Your task to perform on an android device: Add usb-c to usb-a to the cart on target.com, then select checkout. Image 0: 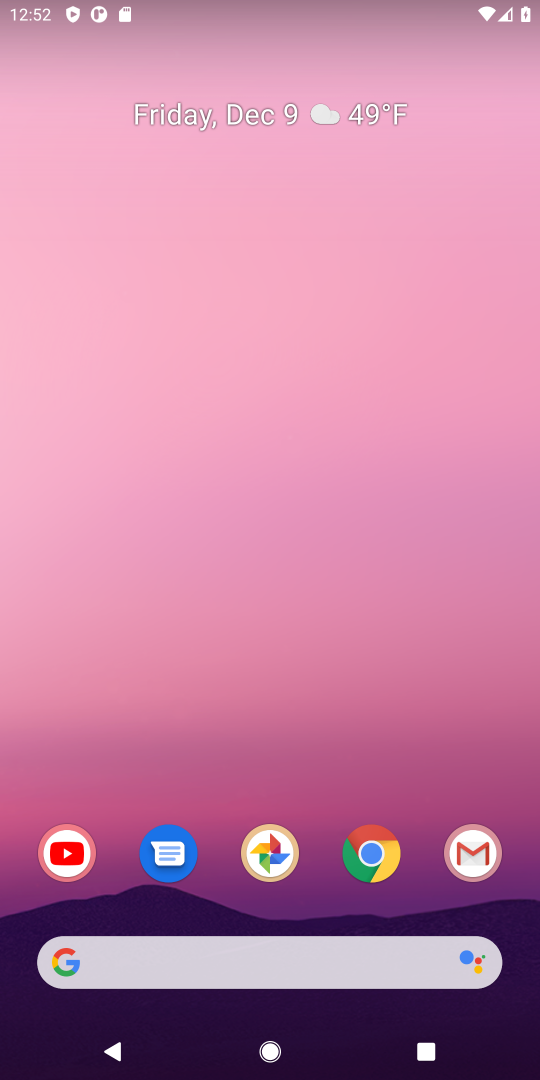
Step 0: click (275, 952)
Your task to perform on an android device: Add usb-c to usb-a to the cart on target.com, then select checkout. Image 1: 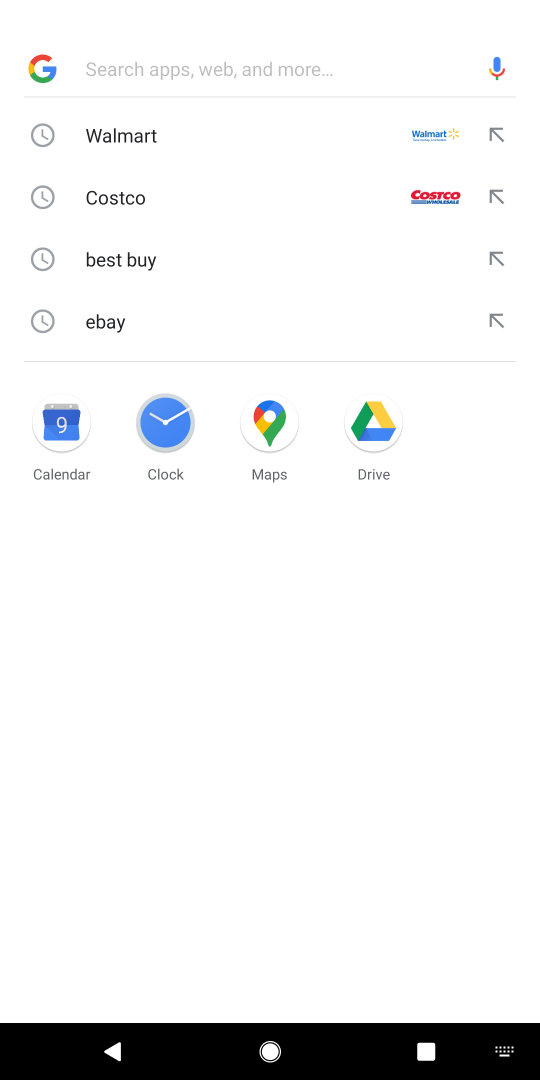
Step 1: click (151, 59)
Your task to perform on an android device: Add usb-c to usb-a to the cart on target.com, then select checkout. Image 2: 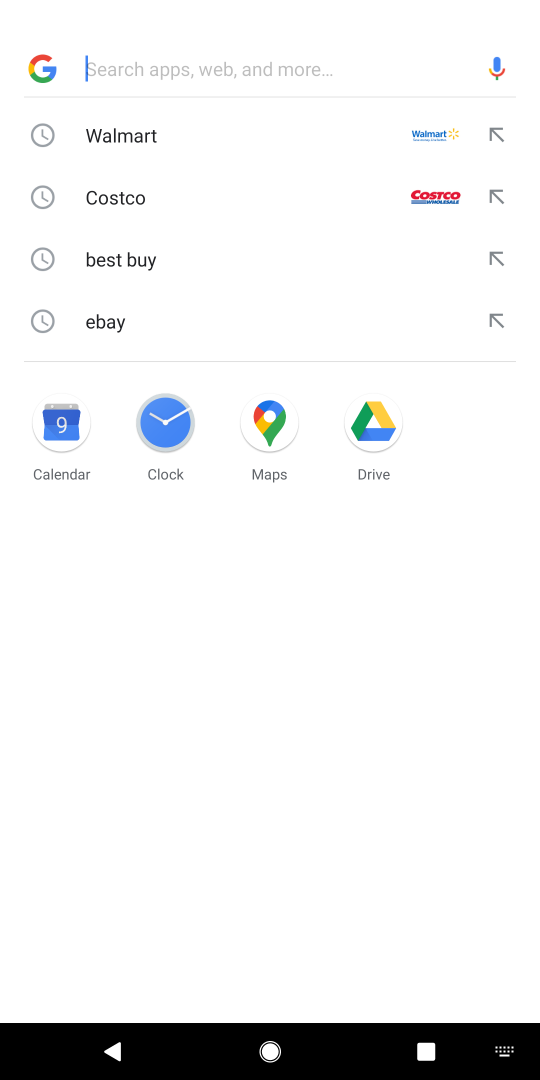
Step 2: type "target.com"
Your task to perform on an android device: Add usb-c to usb-a to the cart on target.com, then select checkout. Image 3: 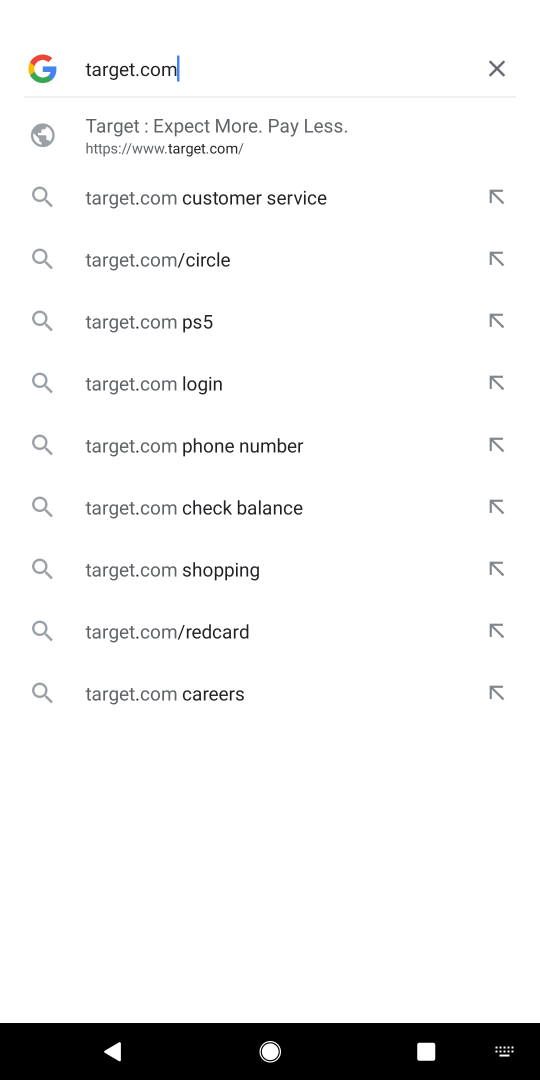
Step 3: click (229, 132)
Your task to perform on an android device: Add usb-c to usb-a to the cart on target.com, then select checkout. Image 4: 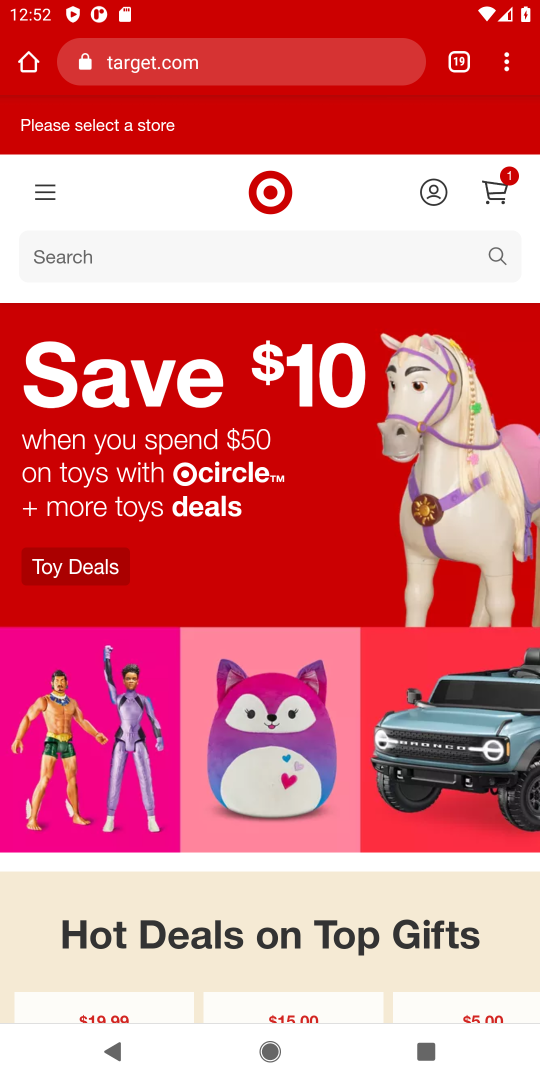
Step 4: click (199, 265)
Your task to perform on an android device: Add usb-c to usb-a to the cart on target.com, then select checkout. Image 5: 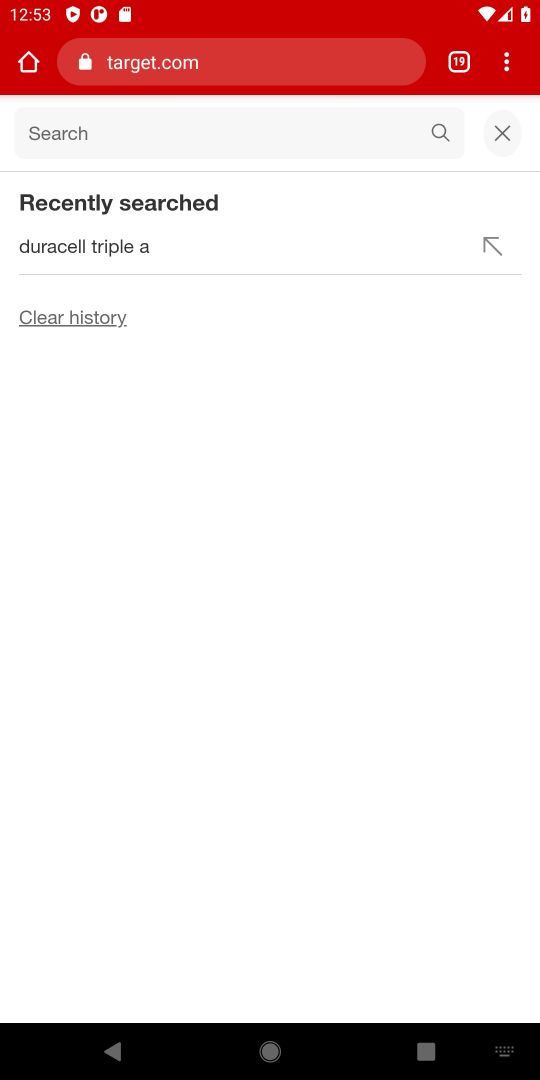
Step 5: type "usb-c to usb-a"
Your task to perform on an android device: Add usb-c to usb-a to the cart on target.com, then select checkout. Image 6: 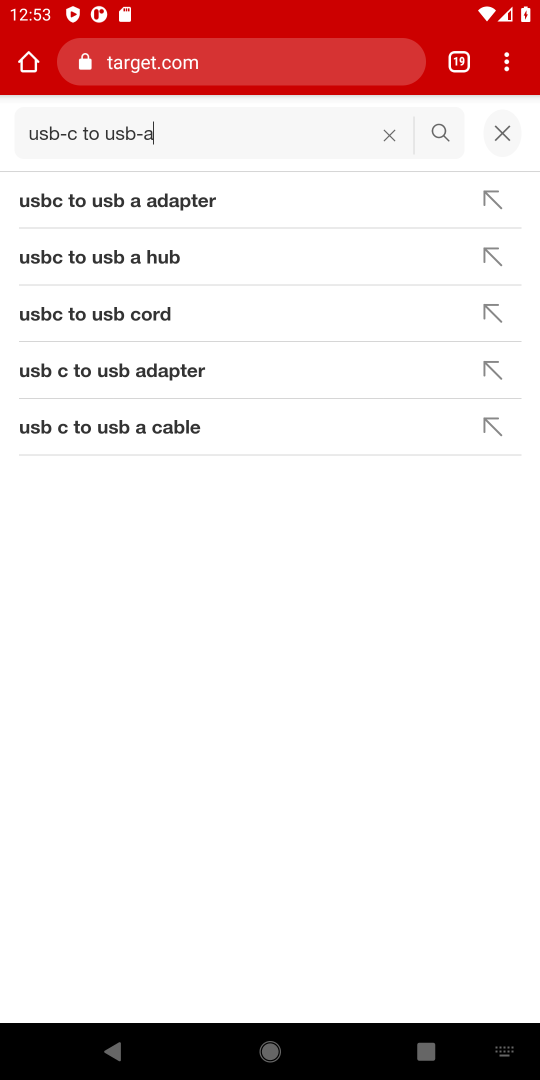
Step 6: click (106, 200)
Your task to perform on an android device: Add usb-c to usb-a to the cart on target.com, then select checkout. Image 7: 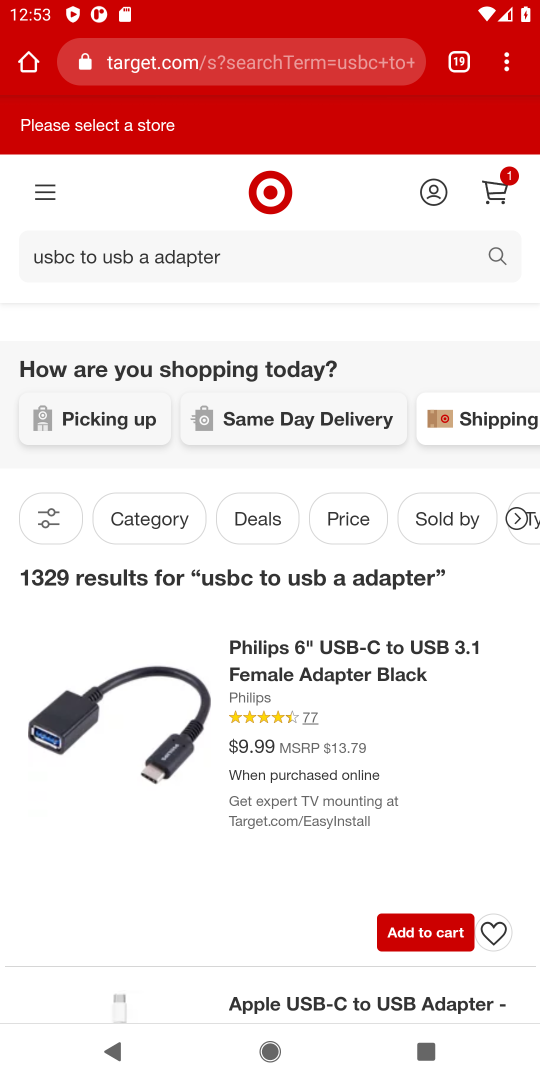
Step 7: click (406, 932)
Your task to perform on an android device: Add usb-c to usb-a to the cart on target.com, then select checkout. Image 8: 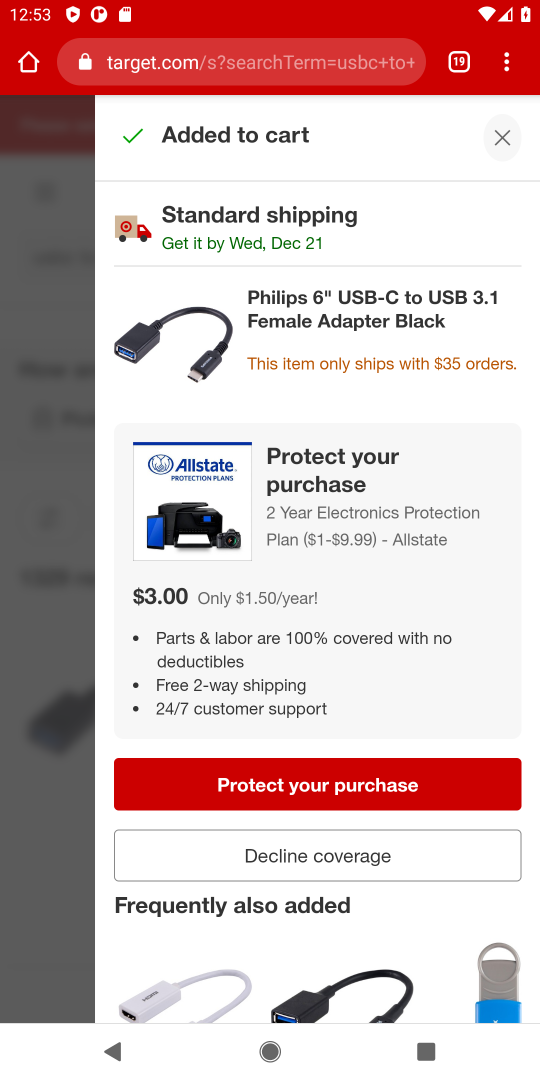
Step 8: click (504, 127)
Your task to perform on an android device: Add usb-c to usb-a to the cart on target.com, then select checkout. Image 9: 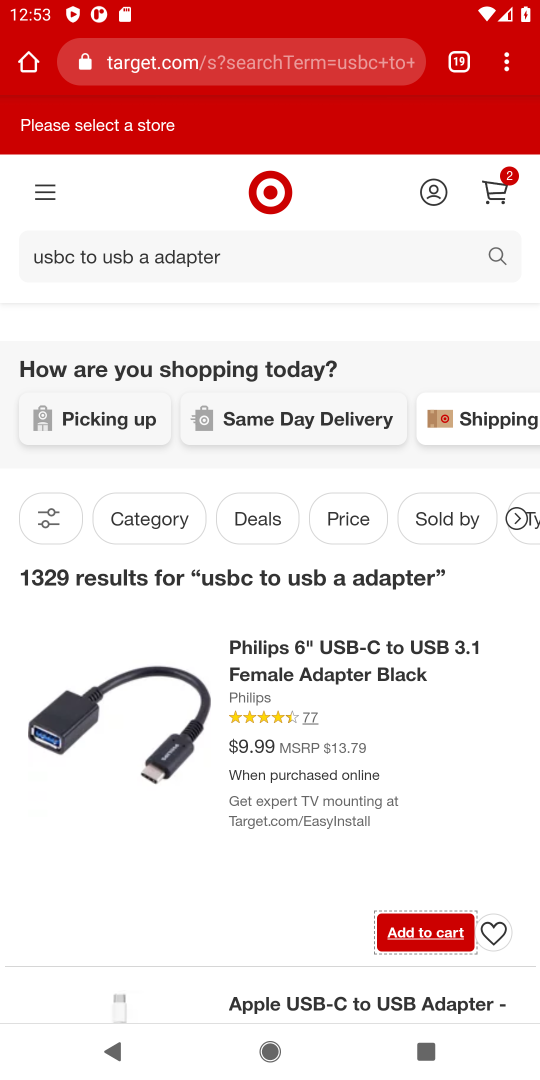
Step 9: click (502, 184)
Your task to perform on an android device: Add usb-c to usb-a to the cart on target.com, then select checkout. Image 10: 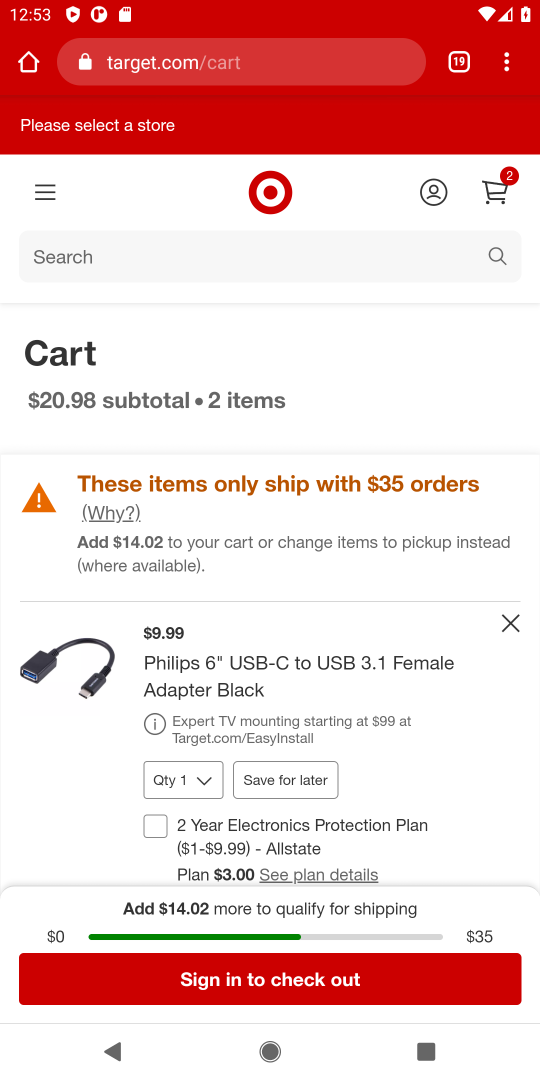
Step 10: click (287, 978)
Your task to perform on an android device: Add usb-c to usb-a to the cart on target.com, then select checkout. Image 11: 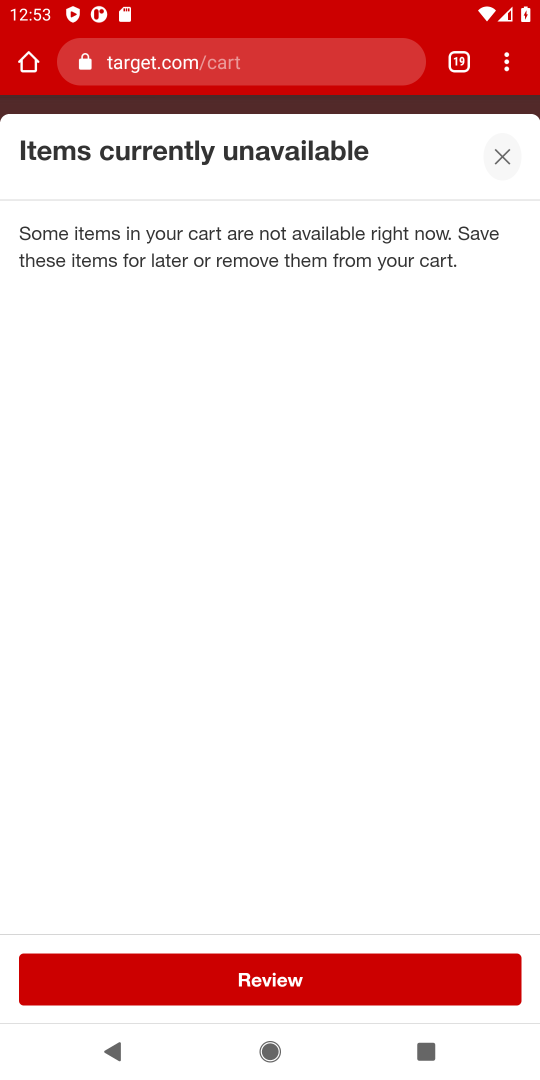
Step 11: task complete